Your task to perform on an android device: open app "Booking.com: Hotels and more" (install if not already installed), go to login, and select forgot password Image 0: 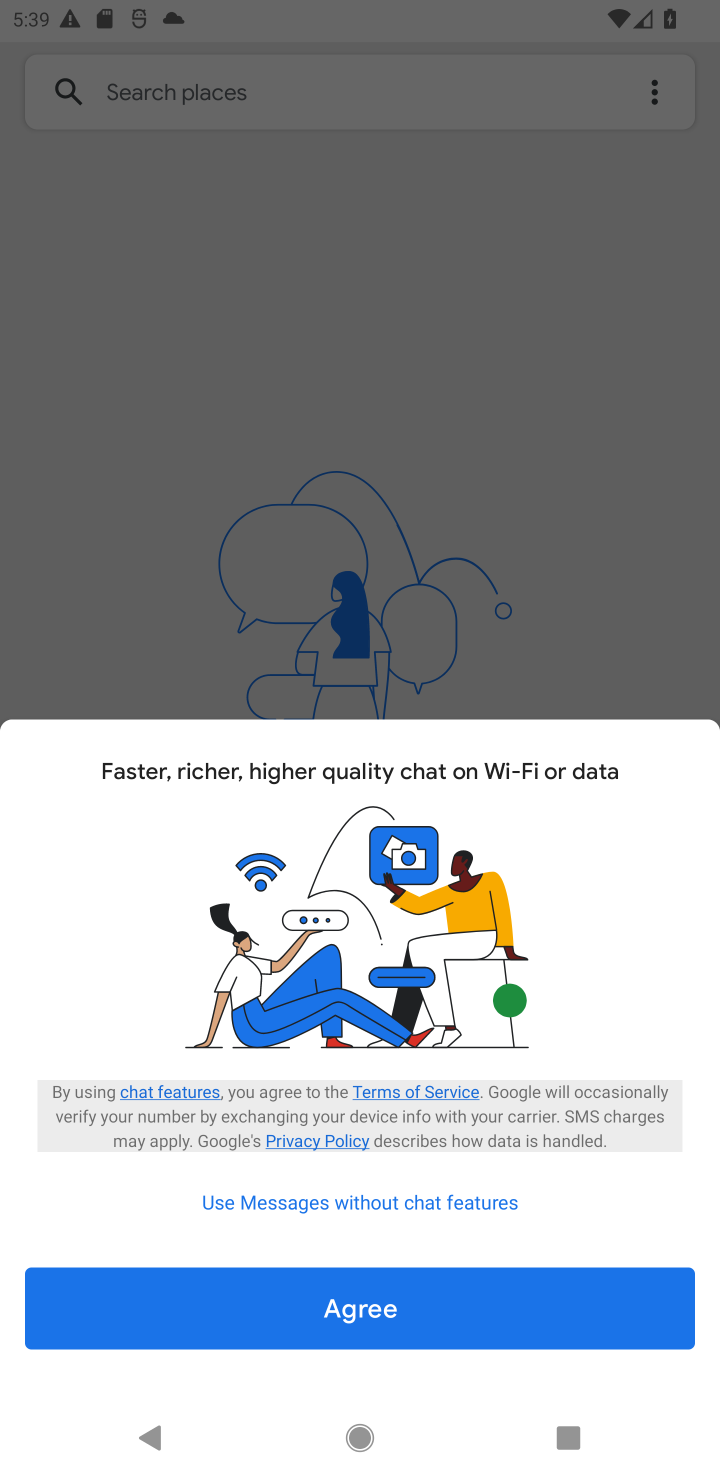
Step 0: press home button
Your task to perform on an android device: open app "Booking.com: Hotels and more" (install if not already installed), go to login, and select forgot password Image 1: 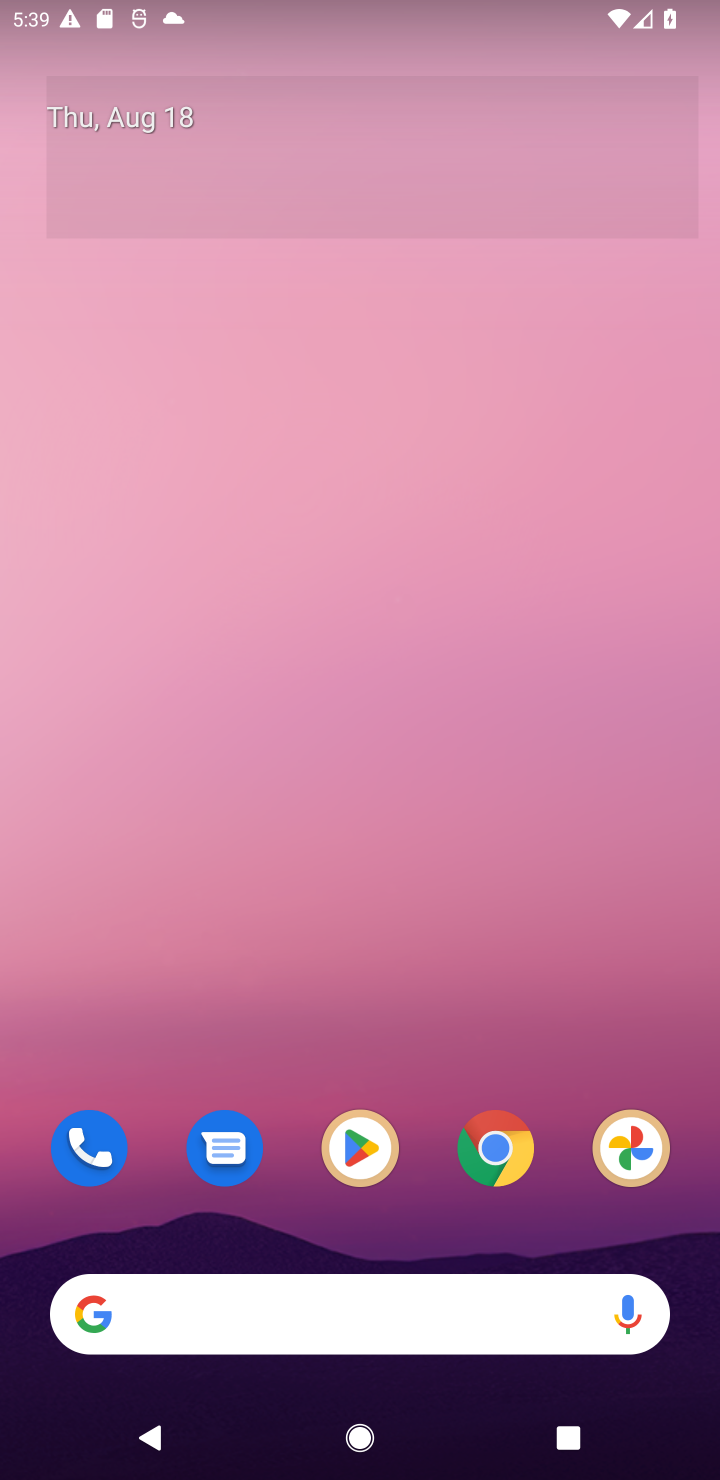
Step 1: drag from (371, 1148) to (475, 7)
Your task to perform on an android device: open app "Booking.com: Hotels and more" (install if not already installed), go to login, and select forgot password Image 2: 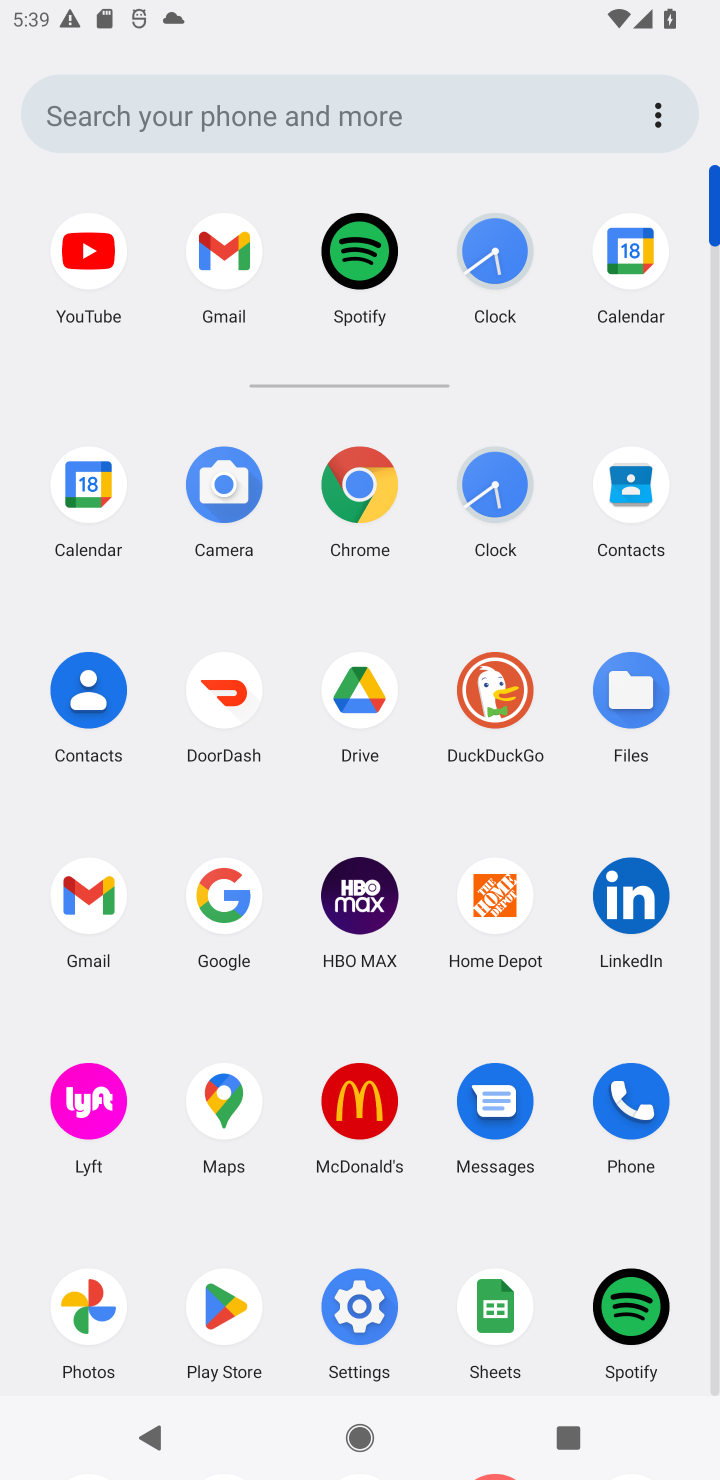
Step 2: click (214, 1314)
Your task to perform on an android device: open app "Booking.com: Hotels and more" (install if not already installed), go to login, and select forgot password Image 3: 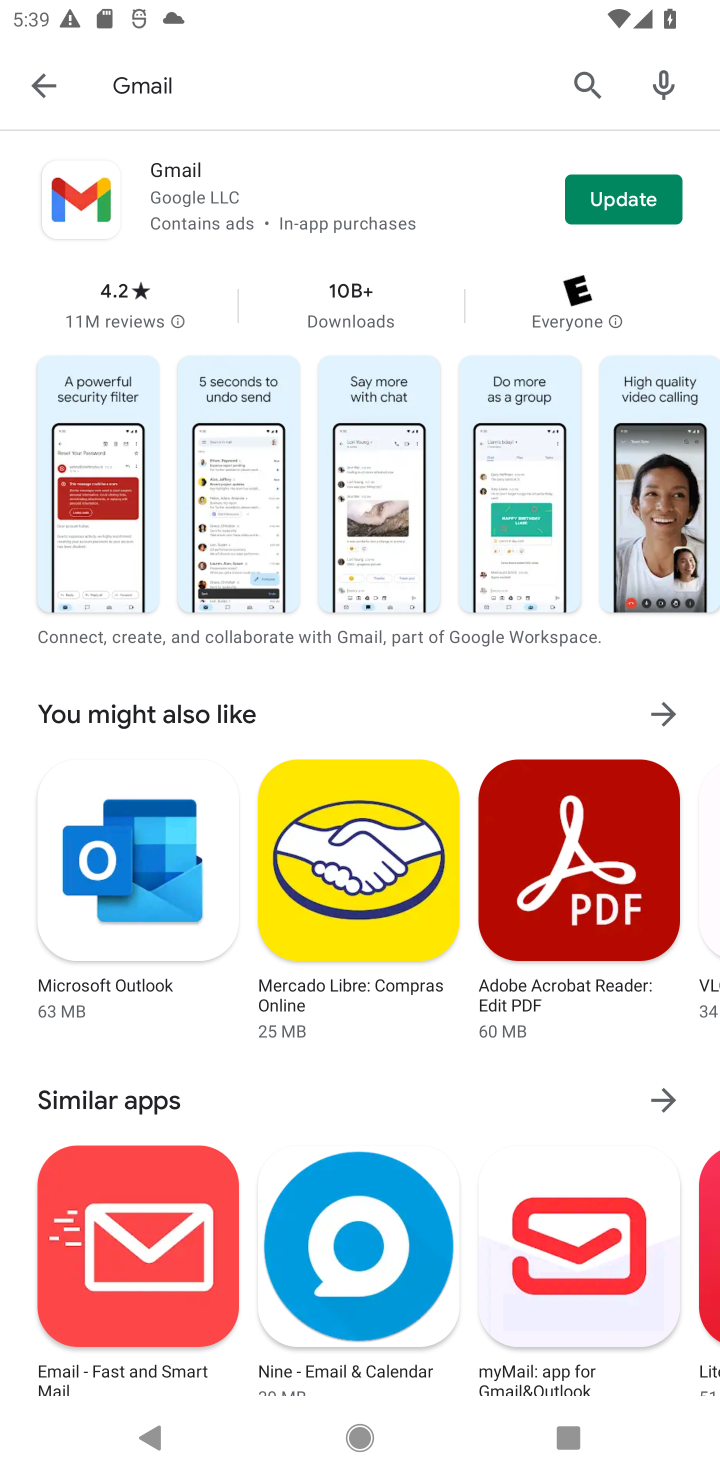
Step 3: press back button
Your task to perform on an android device: open app "Booking.com: Hotels and more" (install if not already installed), go to login, and select forgot password Image 4: 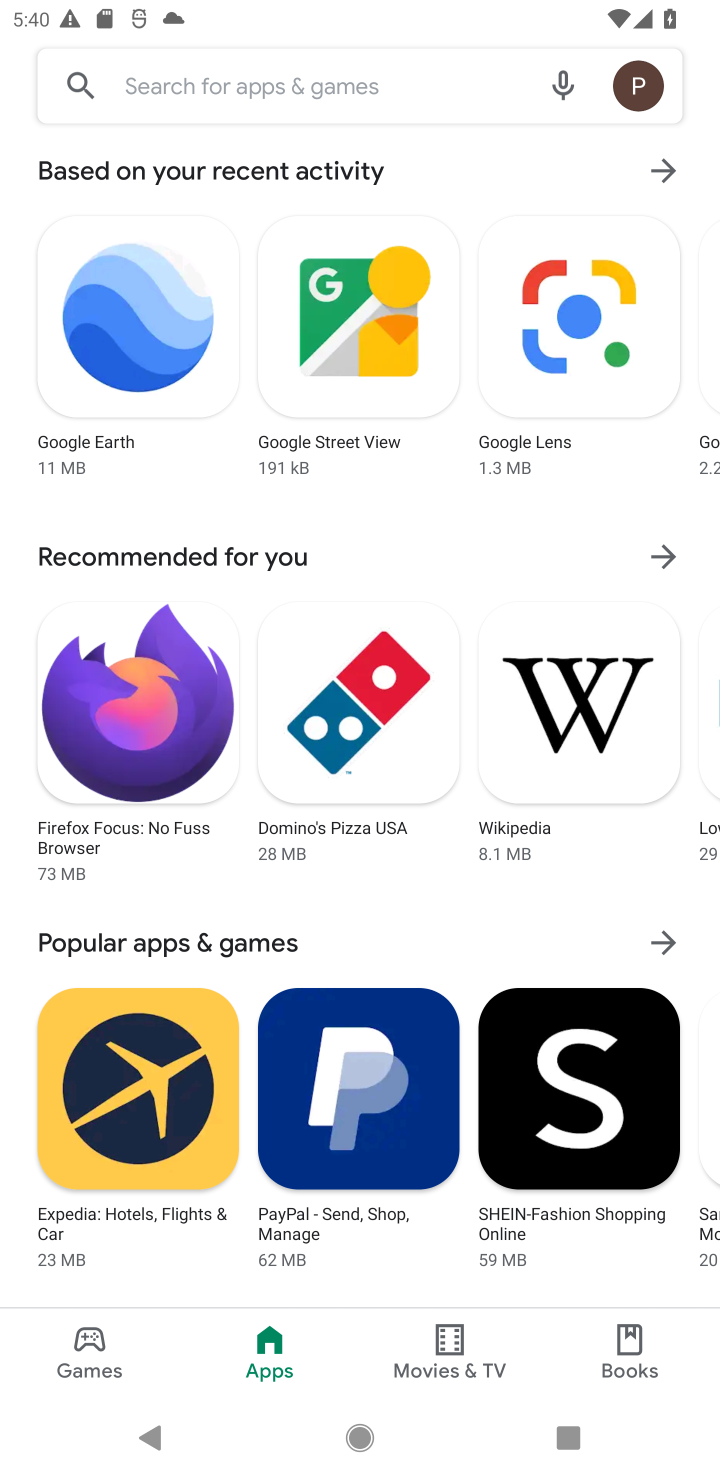
Step 4: type "Booking.com: Hotels and mor"
Your task to perform on an android device: open app "Booking.com: Hotels and more" (install if not already installed), go to login, and select forgot password Image 5: 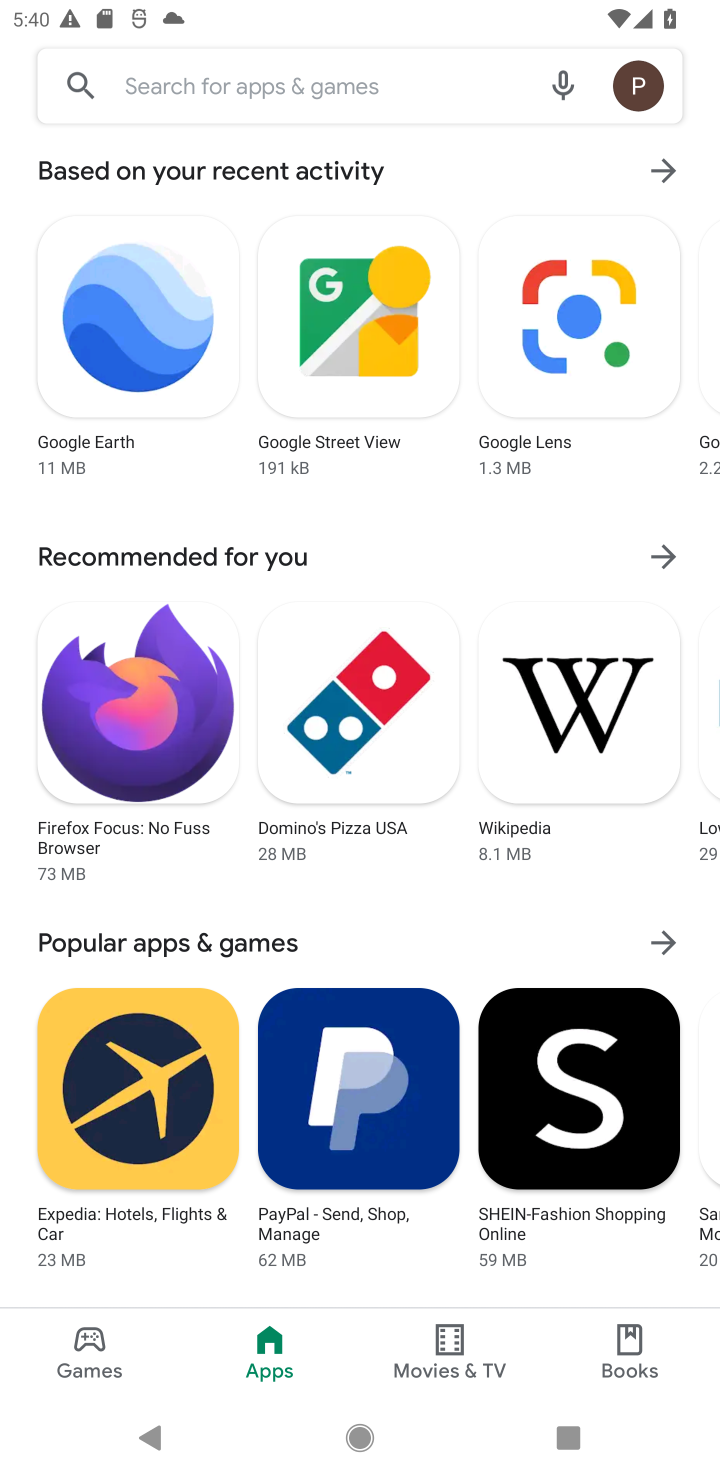
Step 5: press enter
Your task to perform on an android device: open app "Booking.com: Hotels and more" (install if not already installed), go to login, and select forgot password Image 6: 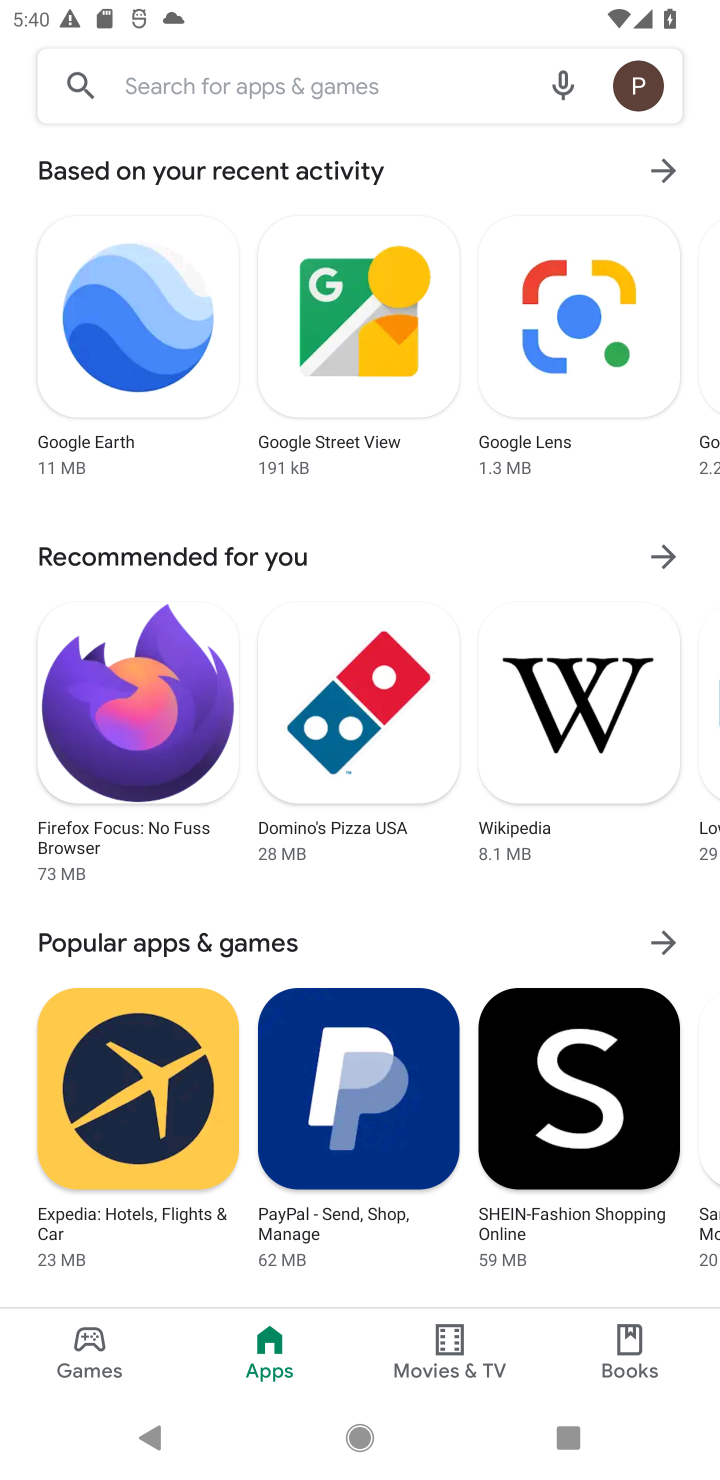
Step 6: click (134, 85)
Your task to perform on an android device: open app "Booking.com: Hotels and more" (install if not already installed), go to login, and select forgot password Image 7: 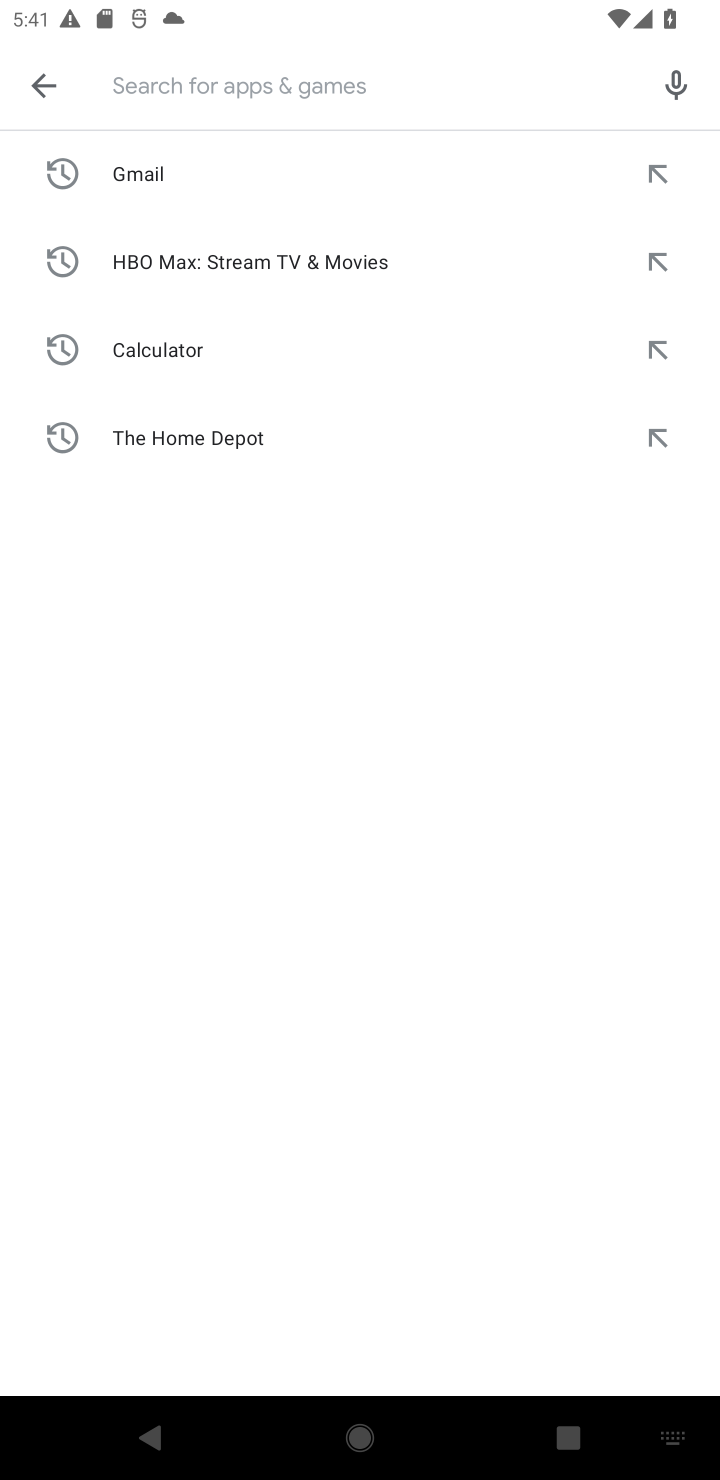
Step 7: type "Booking.com: Hotels and more"
Your task to perform on an android device: open app "Booking.com: Hotels and more" (install if not already installed), go to login, and select forgot password Image 8: 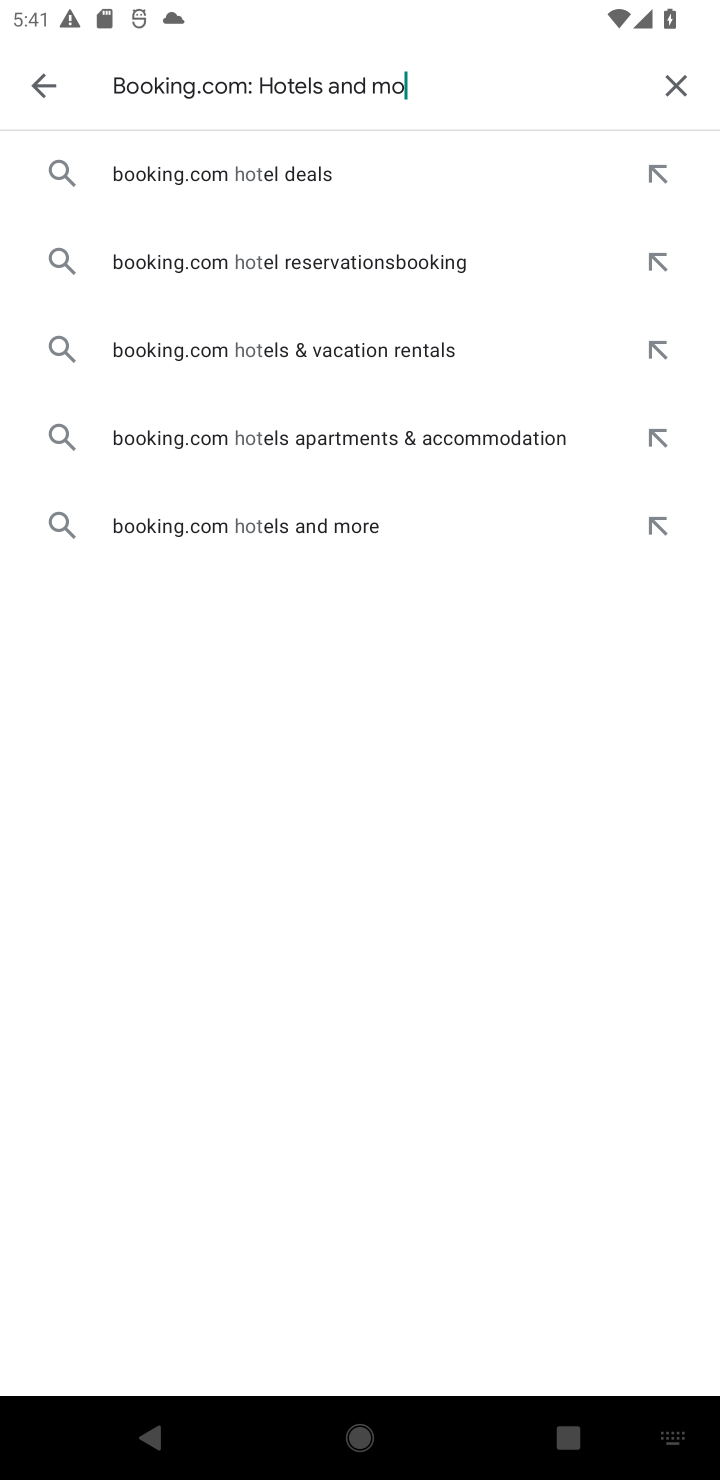
Step 8: press enter
Your task to perform on an android device: open app "Booking.com: Hotels and more" (install if not already installed), go to login, and select forgot password Image 9: 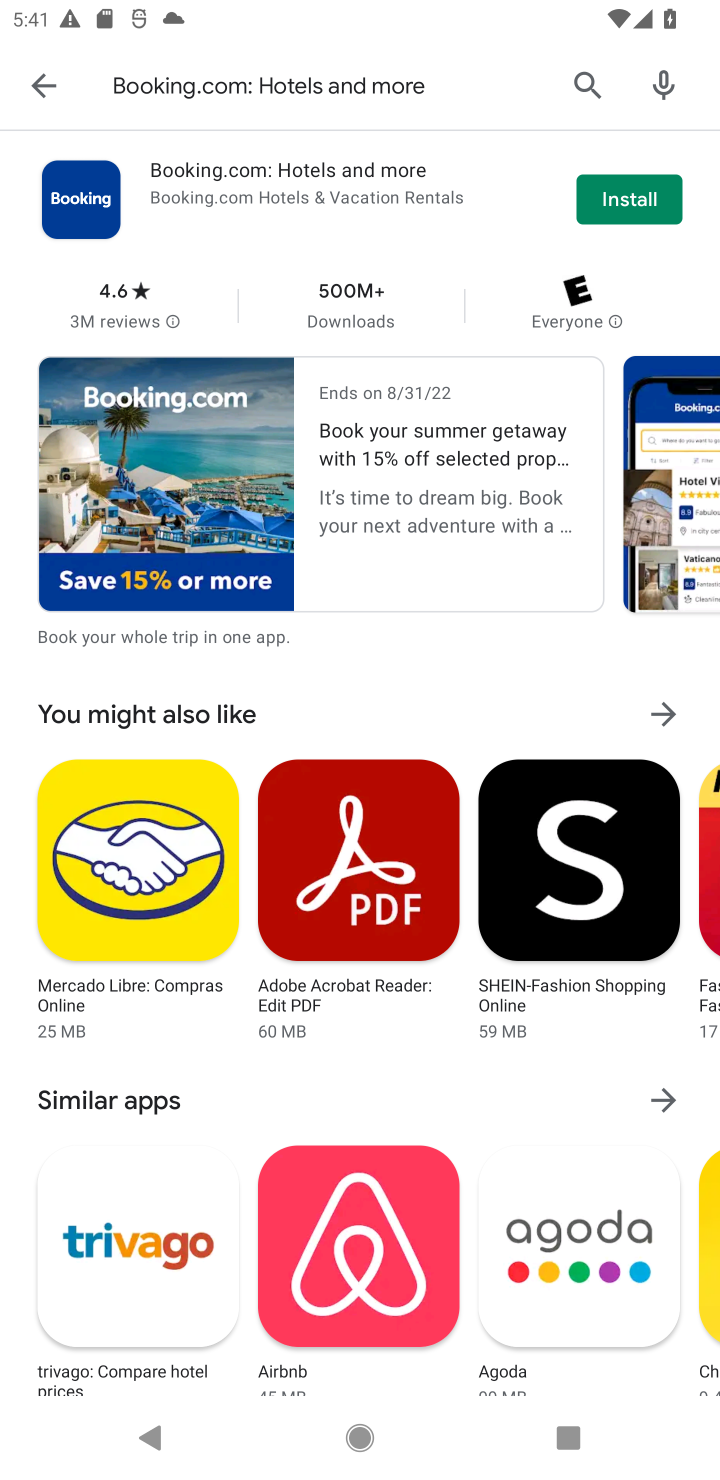
Step 9: click (640, 200)
Your task to perform on an android device: open app "Booking.com: Hotels and more" (install if not already installed), go to login, and select forgot password Image 10: 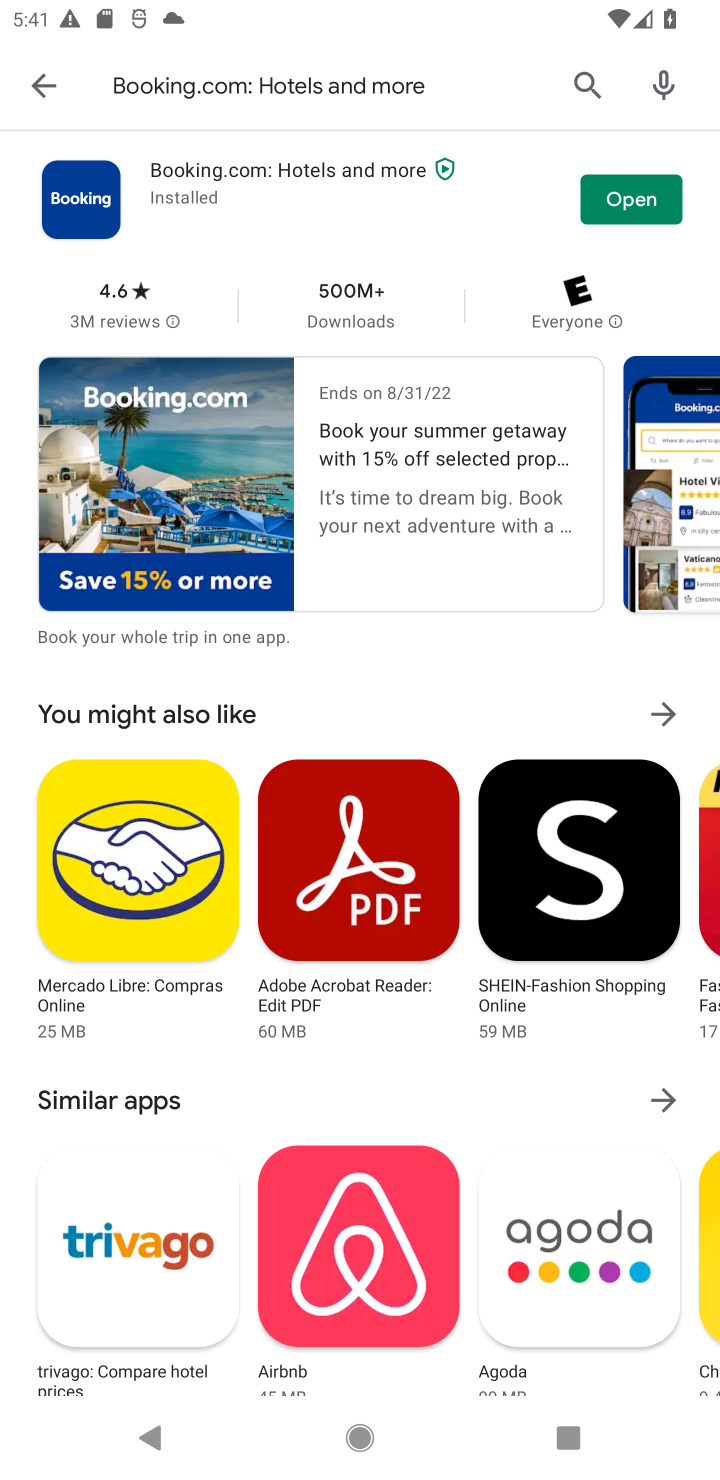
Step 10: click (623, 202)
Your task to perform on an android device: open app "Booking.com: Hotels and more" (install if not already installed), go to login, and select forgot password Image 11: 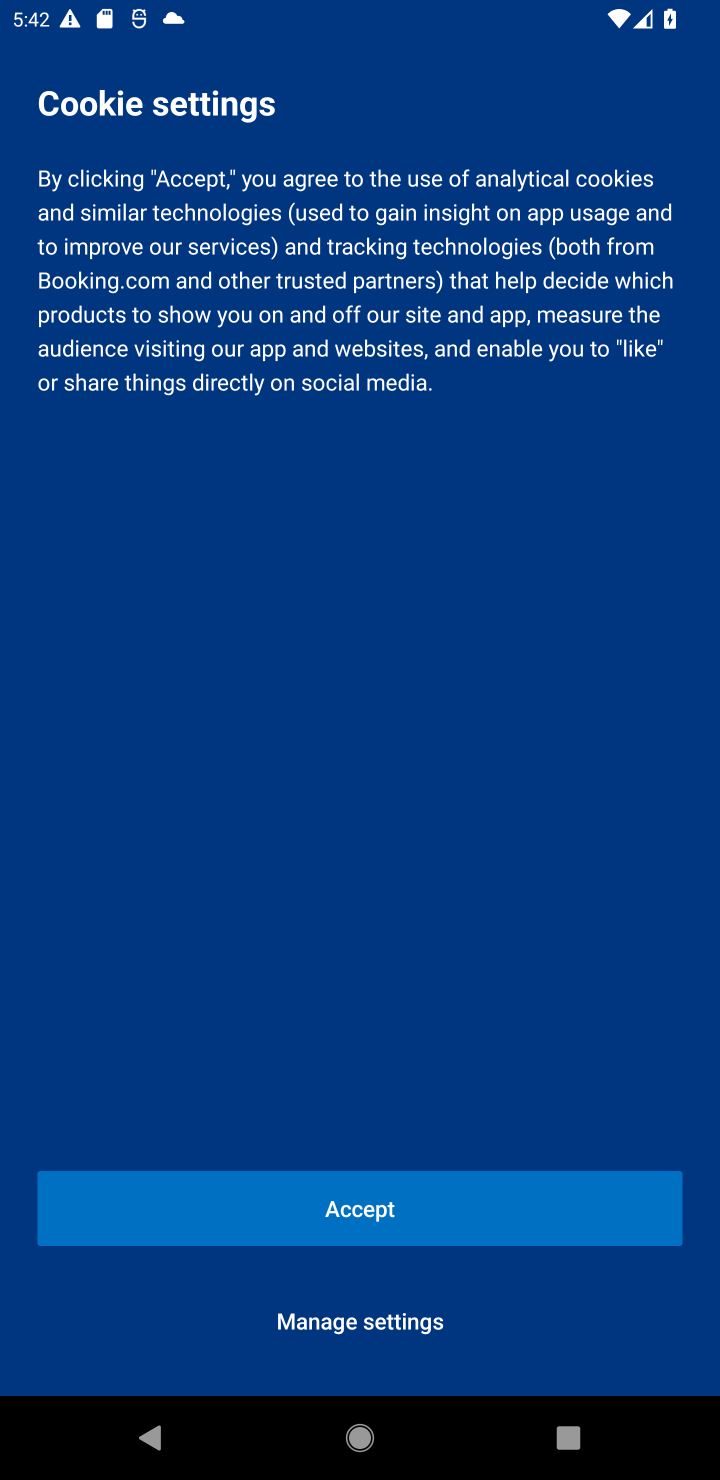
Step 11: task complete